Your task to perform on an android device: Go to location settings Image 0: 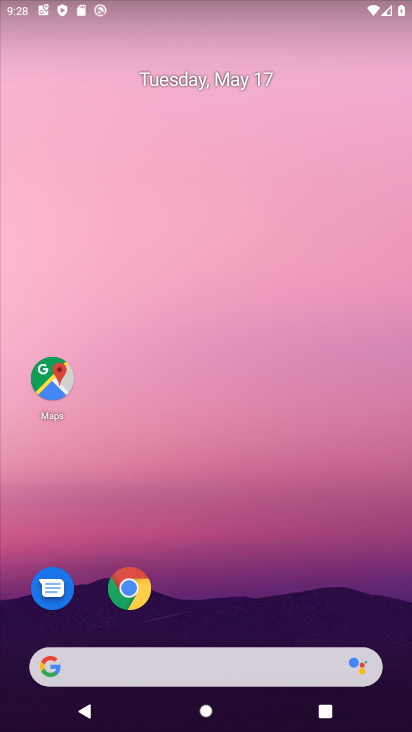
Step 0: drag from (211, 650) to (183, 56)
Your task to perform on an android device: Go to location settings Image 1: 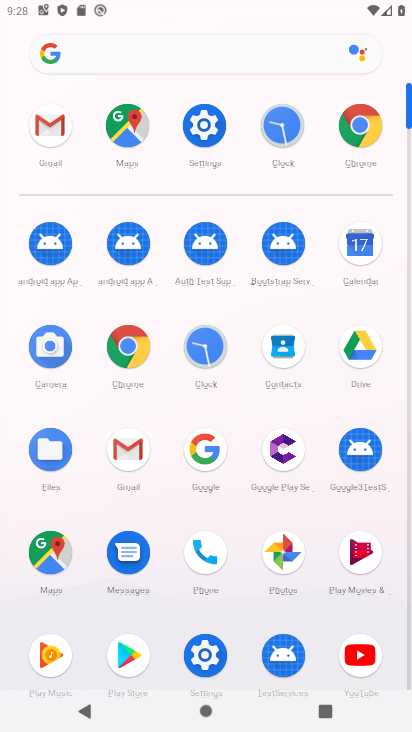
Step 1: click (206, 105)
Your task to perform on an android device: Go to location settings Image 2: 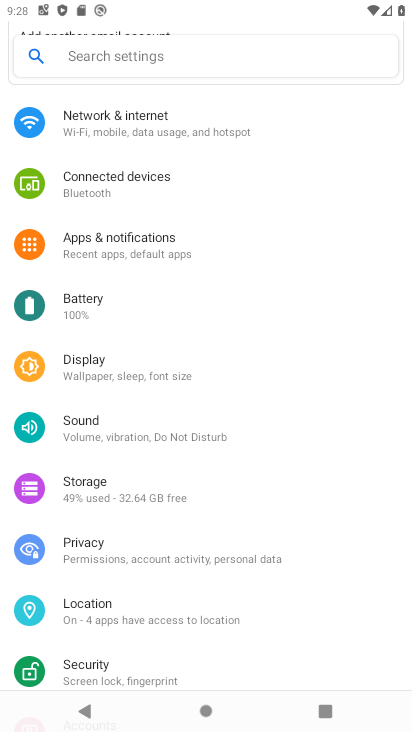
Step 2: drag from (78, 602) to (64, 440)
Your task to perform on an android device: Go to location settings Image 3: 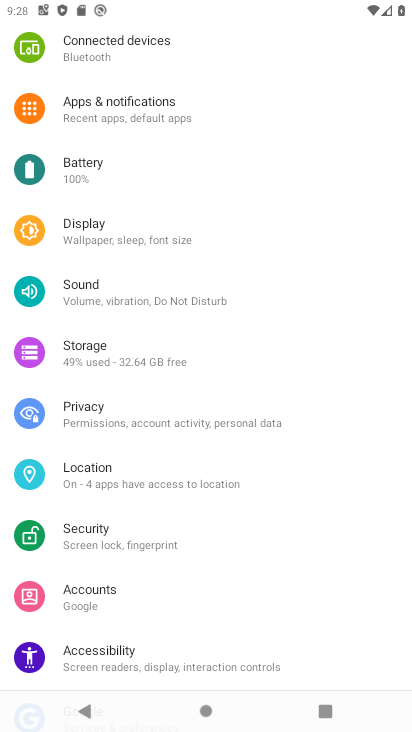
Step 3: click (76, 454)
Your task to perform on an android device: Go to location settings Image 4: 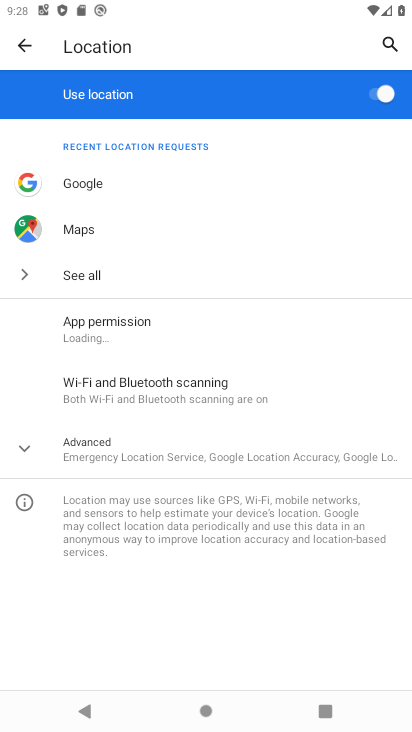
Step 4: click (122, 428)
Your task to perform on an android device: Go to location settings Image 5: 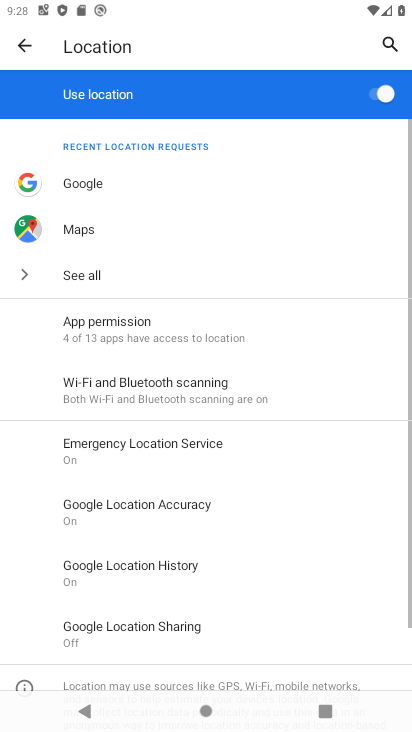
Step 5: task complete